Your task to perform on an android device: Open Maps and search for coffee Image 0: 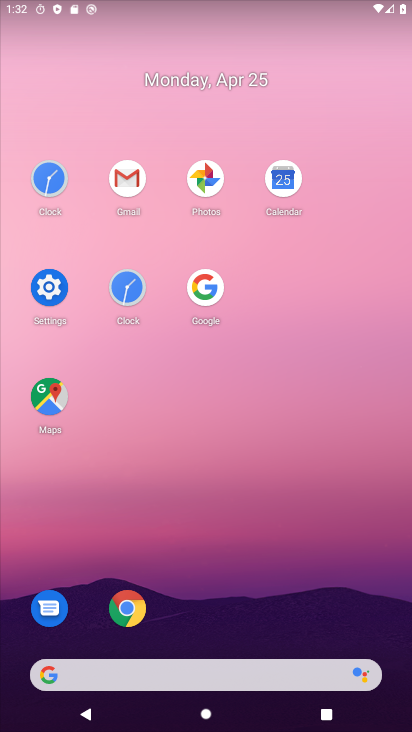
Step 0: click (52, 403)
Your task to perform on an android device: Open Maps and search for coffee Image 1: 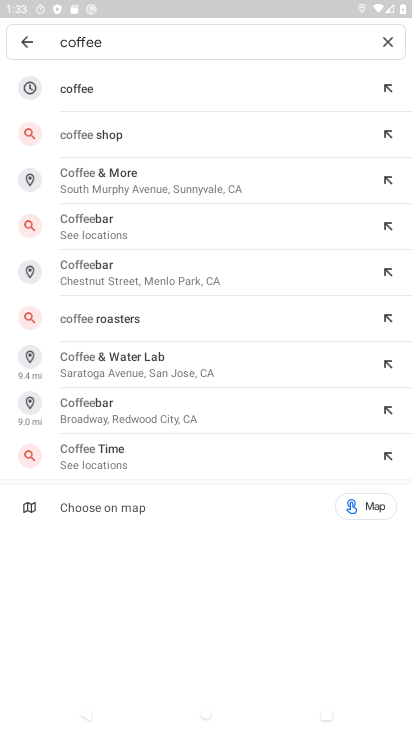
Step 1: task complete